Your task to perform on an android device: open a new tab in the chrome app Image 0: 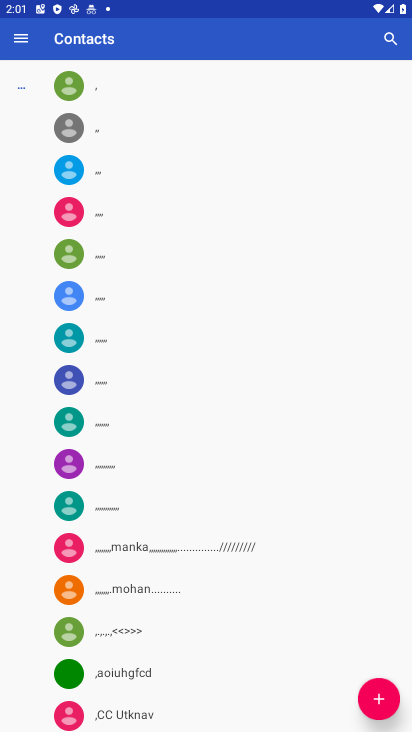
Step 0: press home button
Your task to perform on an android device: open a new tab in the chrome app Image 1: 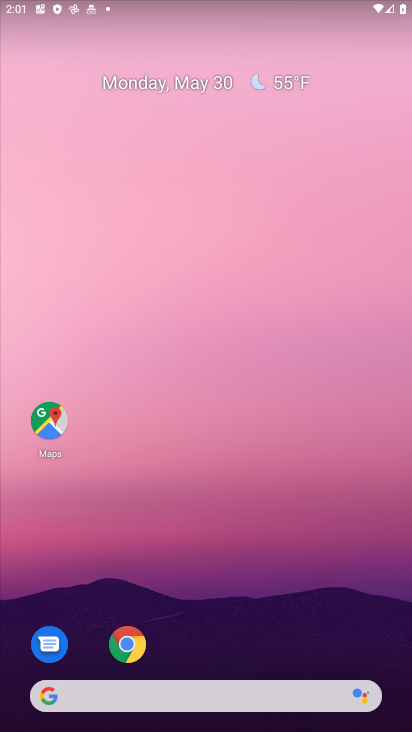
Step 1: drag from (270, 624) to (142, 85)
Your task to perform on an android device: open a new tab in the chrome app Image 2: 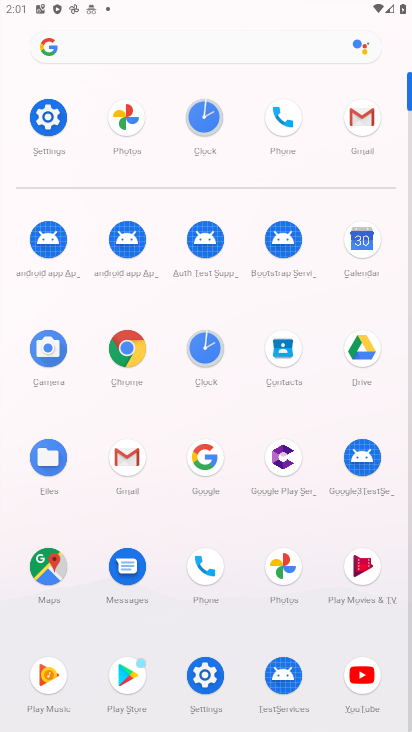
Step 2: click (125, 351)
Your task to perform on an android device: open a new tab in the chrome app Image 3: 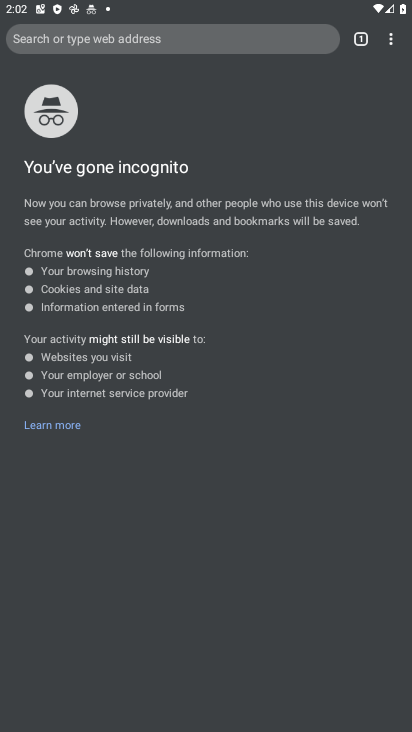
Step 3: click (356, 34)
Your task to perform on an android device: open a new tab in the chrome app Image 4: 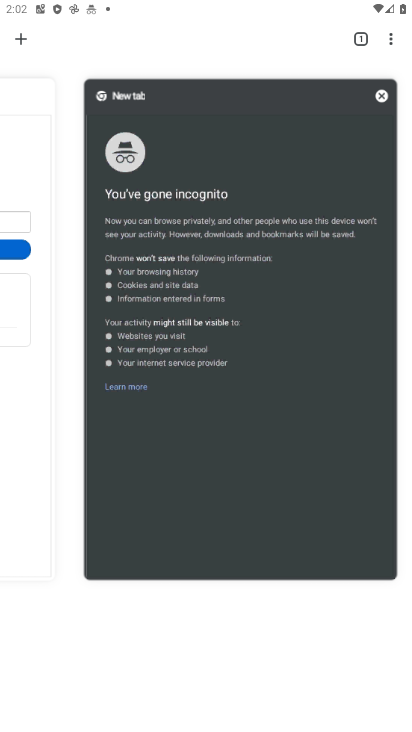
Step 4: click (15, 27)
Your task to perform on an android device: open a new tab in the chrome app Image 5: 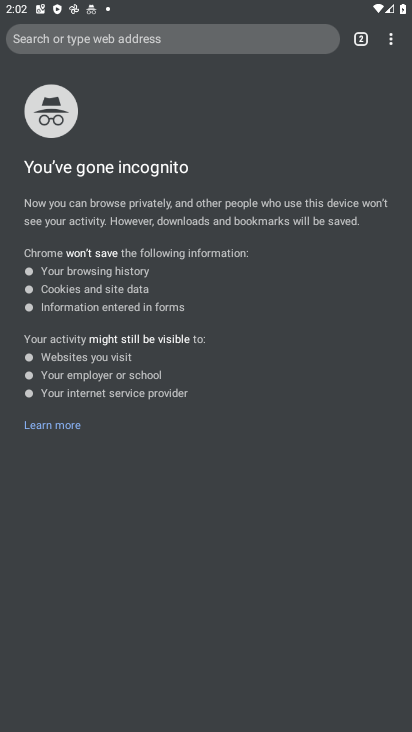
Step 5: task complete